Your task to perform on an android device: Turn off the flashlight Image 0: 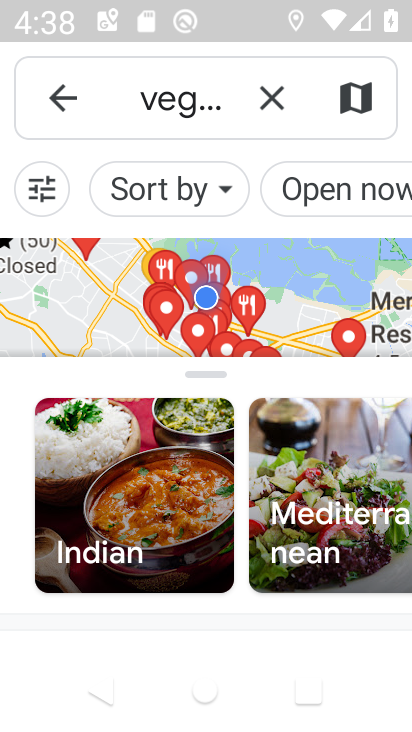
Step 0: press home button
Your task to perform on an android device: Turn off the flashlight Image 1: 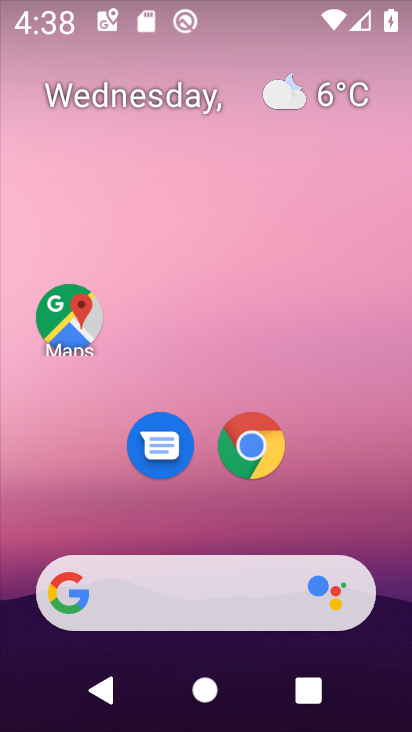
Step 1: drag from (230, 508) to (186, 16)
Your task to perform on an android device: Turn off the flashlight Image 2: 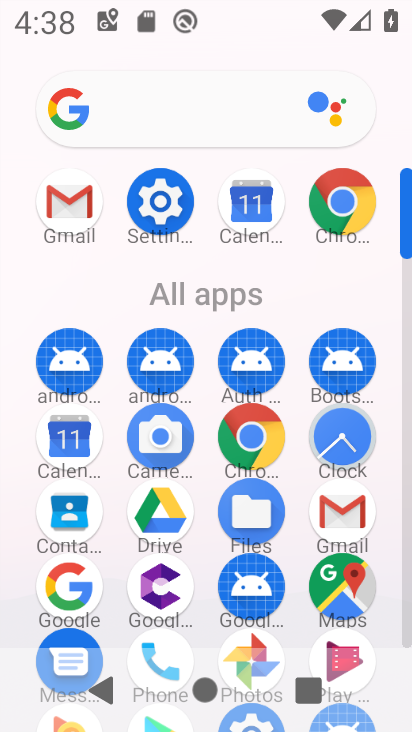
Step 2: click (158, 226)
Your task to perform on an android device: Turn off the flashlight Image 3: 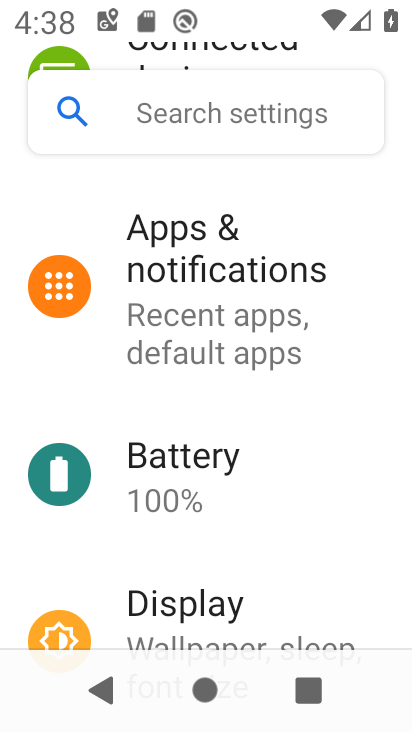
Step 3: click (244, 129)
Your task to perform on an android device: Turn off the flashlight Image 4: 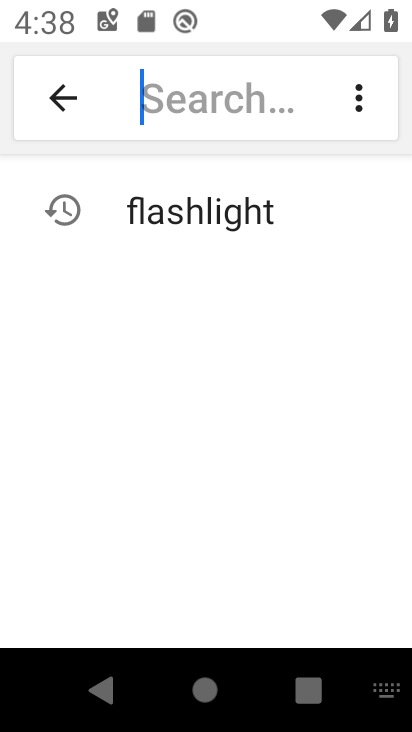
Step 4: type "flashlight"
Your task to perform on an android device: Turn off the flashlight Image 5: 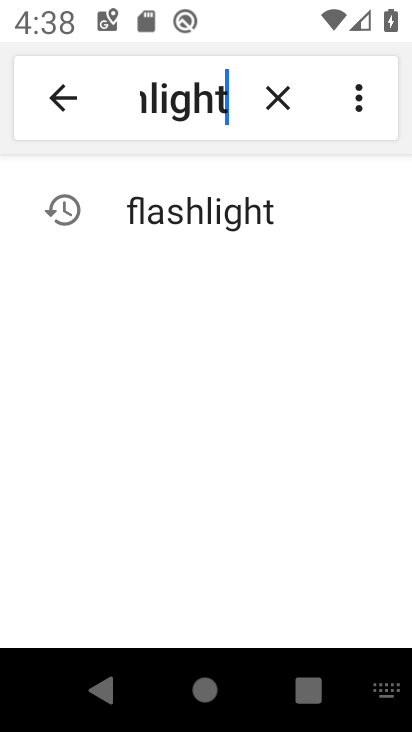
Step 5: click (283, 228)
Your task to perform on an android device: Turn off the flashlight Image 6: 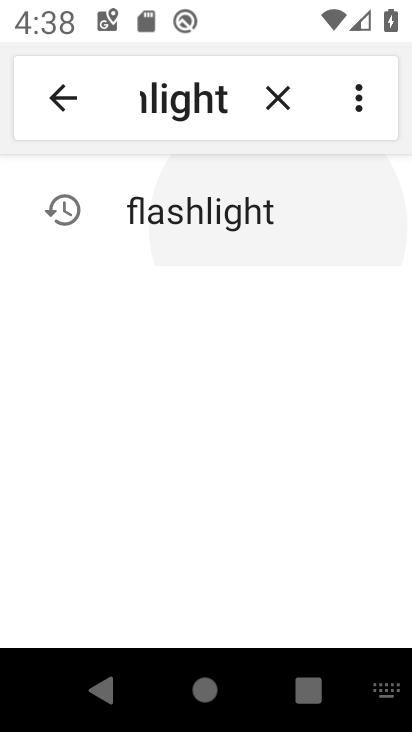
Step 6: click (284, 228)
Your task to perform on an android device: Turn off the flashlight Image 7: 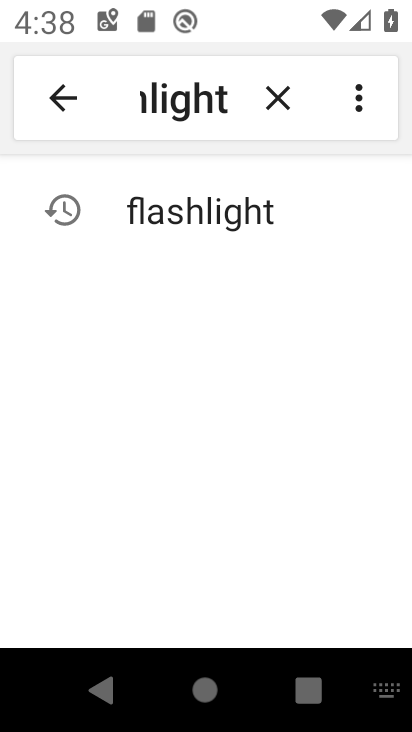
Step 7: task complete